Your task to perform on an android device: turn on notifications settings in the gmail app Image 0: 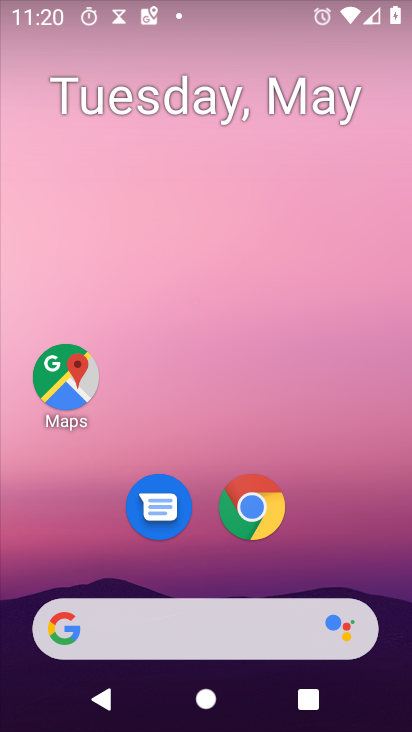
Step 0: drag from (37, 600) to (341, 174)
Your task to perform on an android device: turn on notifications settings in the gmail app Image 1: 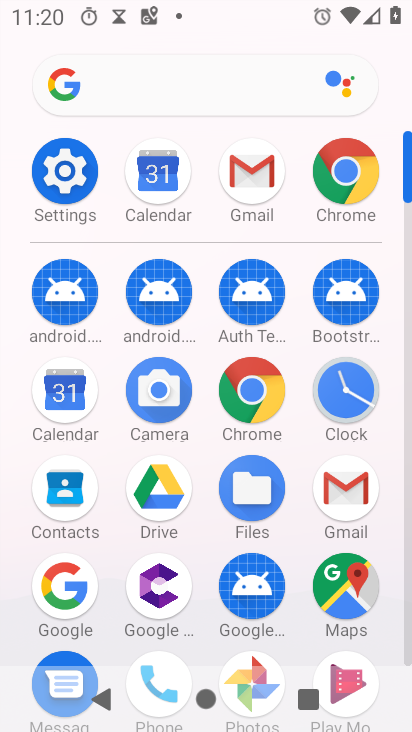
Step 1: click (282, 171)
Your task to perform on an android device: turn on notifications settings in the gmail app Image 2: 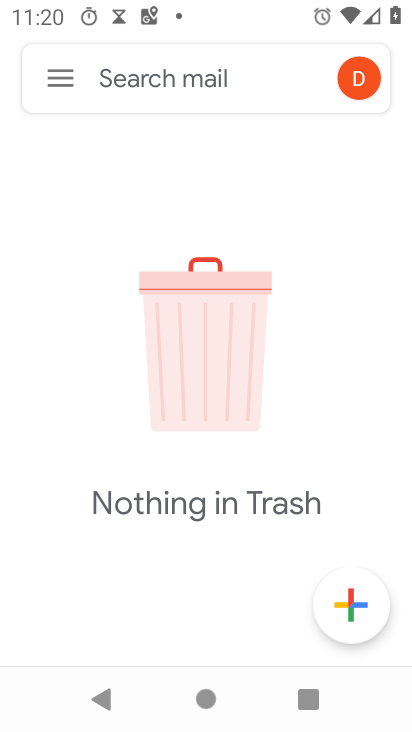
Step 2: click (53, 93)
Your task to perform on an android device: turn on notifications settings in the gmail app Image 3: 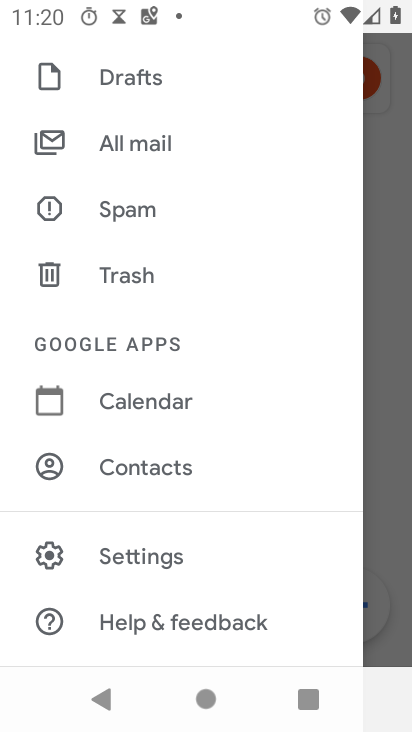
Step 3: click (107, 565)
Your task to perform on an android device: turn on notifications settings in the gmail app Image 4: 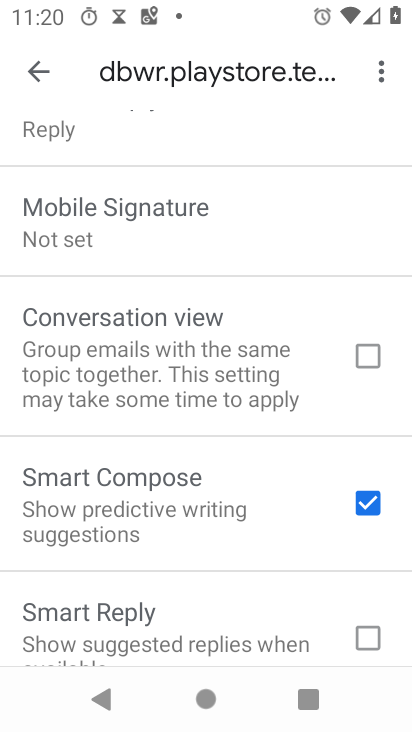
Step 4: drag from (153, 215) to (175, 613)
Your task to perform on an android device: turn on notifications settings in the gmail app Image 5: 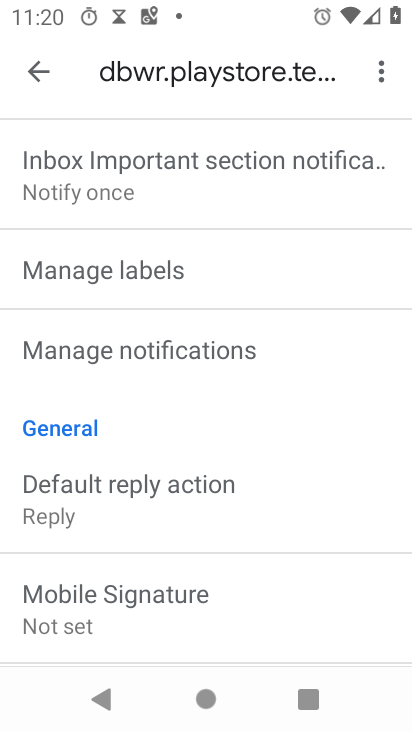
Step 5: click (178, 350)
Your task to perform on an android device: turn on notifications settings in the gmail app Image 6: 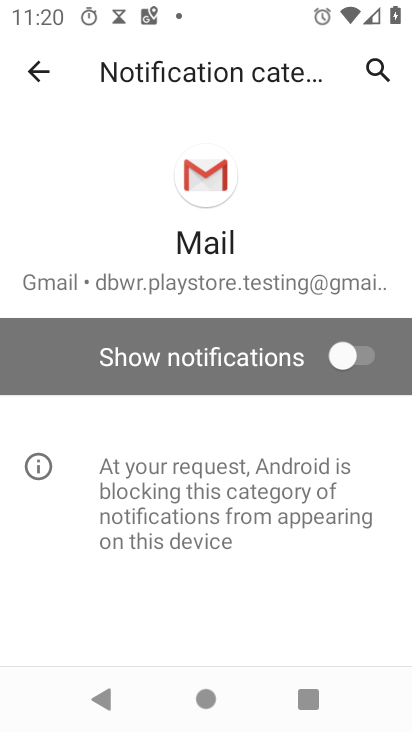
Step 6: click (344, 360)
Your task to perform on an android device: turn on notifications settings in the gmail app Image 7: 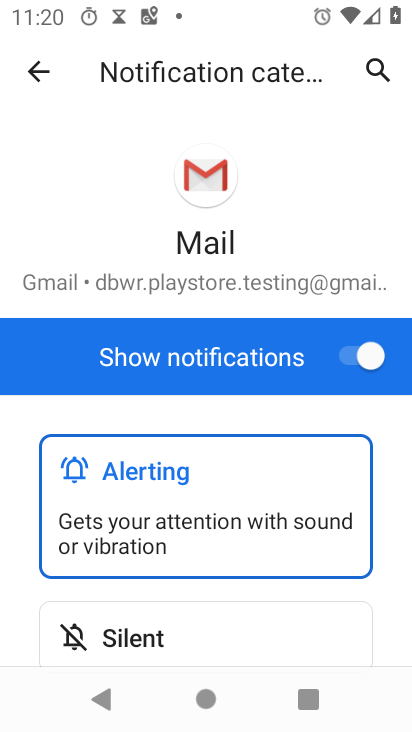
Step 7: task complete